Your task to perform on an android device: check the backup settings in the google photos Image 0: 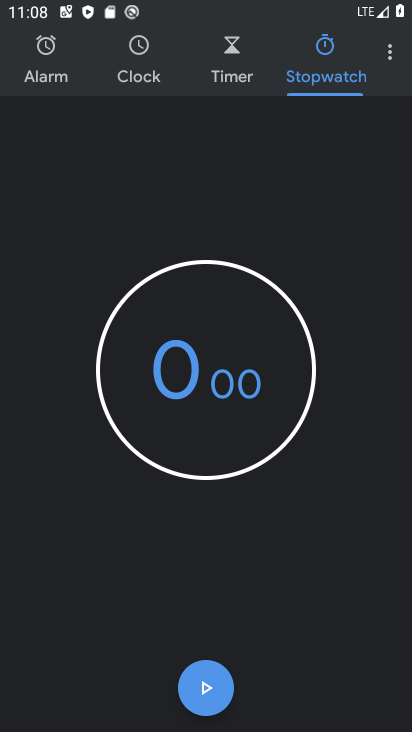
Step 0: press home button
Your task to perform on an android device: check the backup settings in the google photos Image 1: 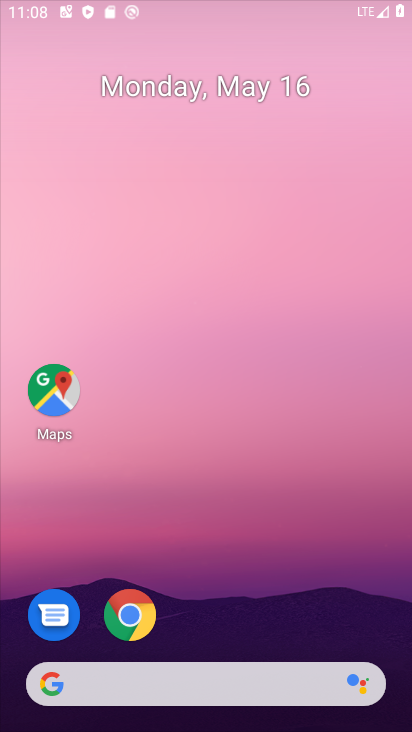
Step 1: drag from (194, 668) to (206, 128)
Your task to perform on an android device: check the backup settings in the google photos Image 2: 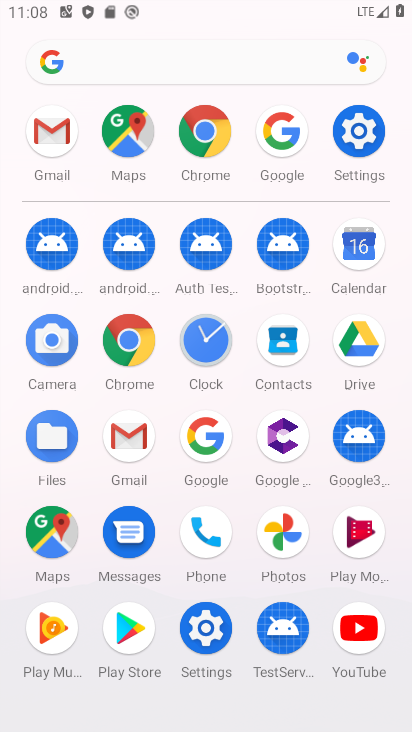
Step 2: click (289, 551)
Your task to perform on an android device: check the backup settings in the google photos Image 3: 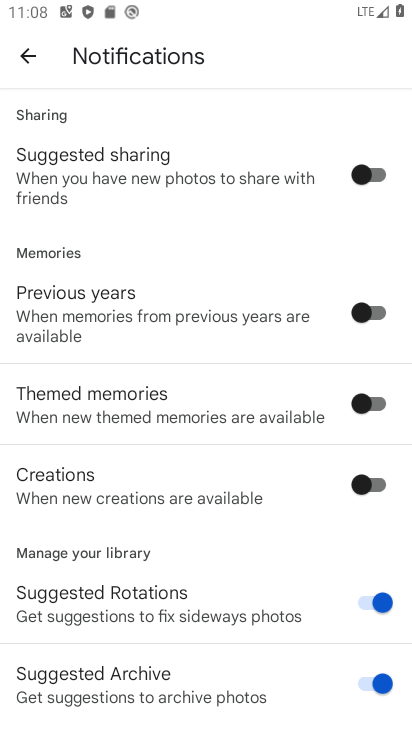
Step 3: click (29, 59)
Your task to perform on an android device: check the backup settings in the google photos Image 4: 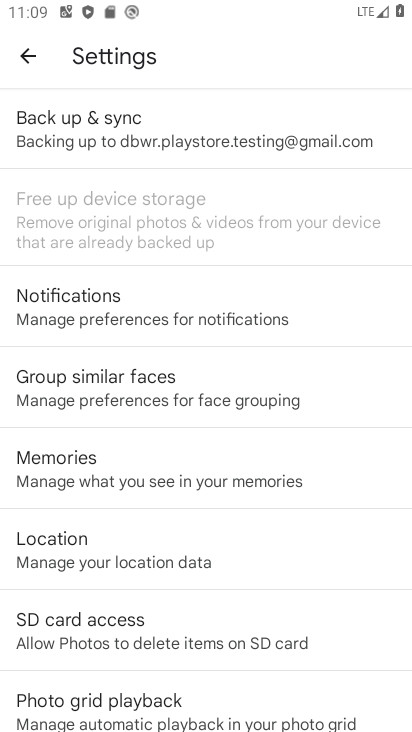
Step 4: click (118, 131)
Your task to perform on an android device: check the backup settings in the google photos Image 5: 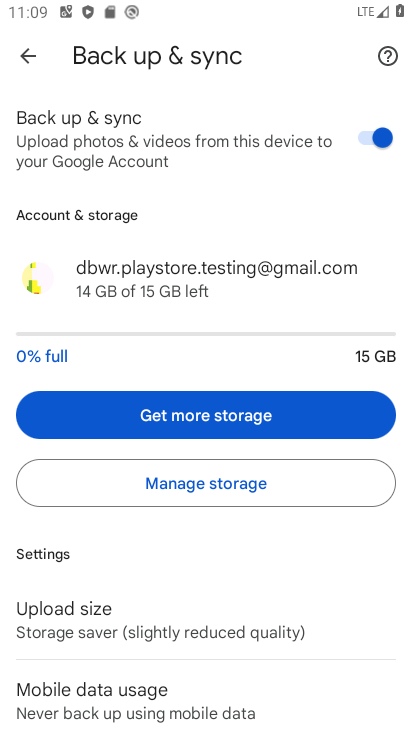
Step 5: task complete